Your task to perform on an android device: Open Wikipedia Image 0: 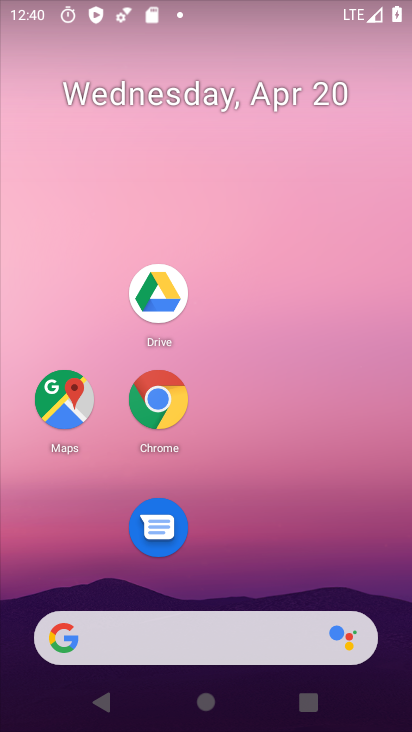
Step 0: drag from (276, 637) to (182, 272)
Your task to perform on an android device: Open Wikipedia Image 1: 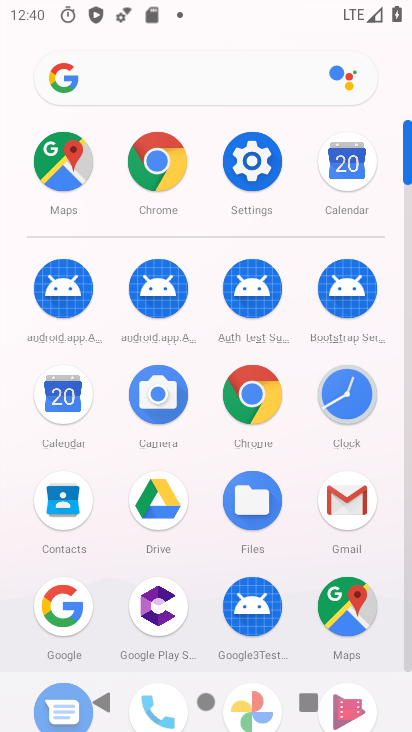
Step 1: click (142, 176)
Your task to perform on an android device: Open Wikipedia Image 2: 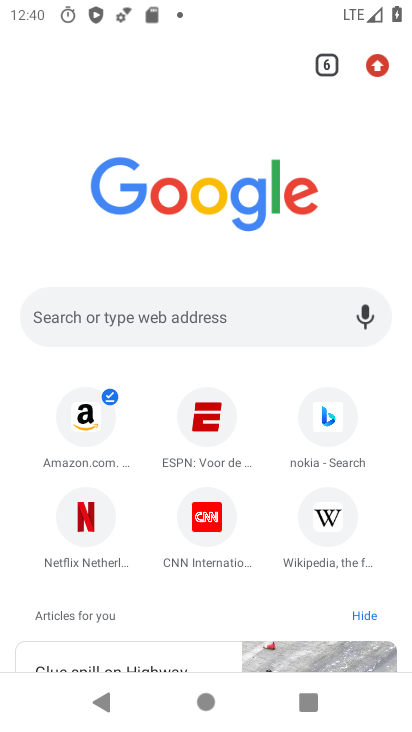
Step 2: click (325, 501)
Your task to perform on an android device: Open Wikipedia Image 3: 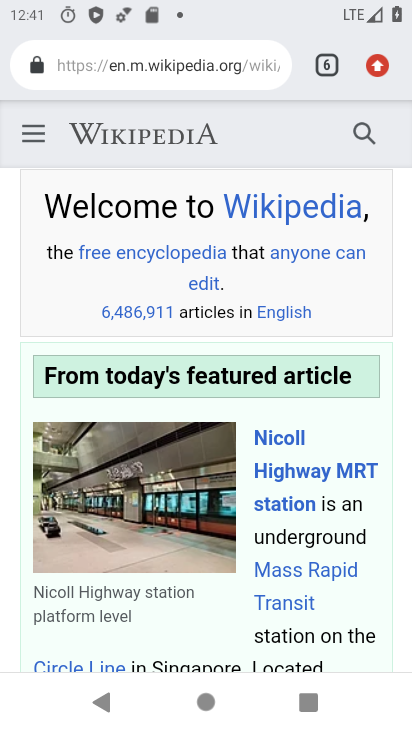
Step 3: task complete